Your task to perform on an android device: turn on notifications settings in the gmail app Image 0: 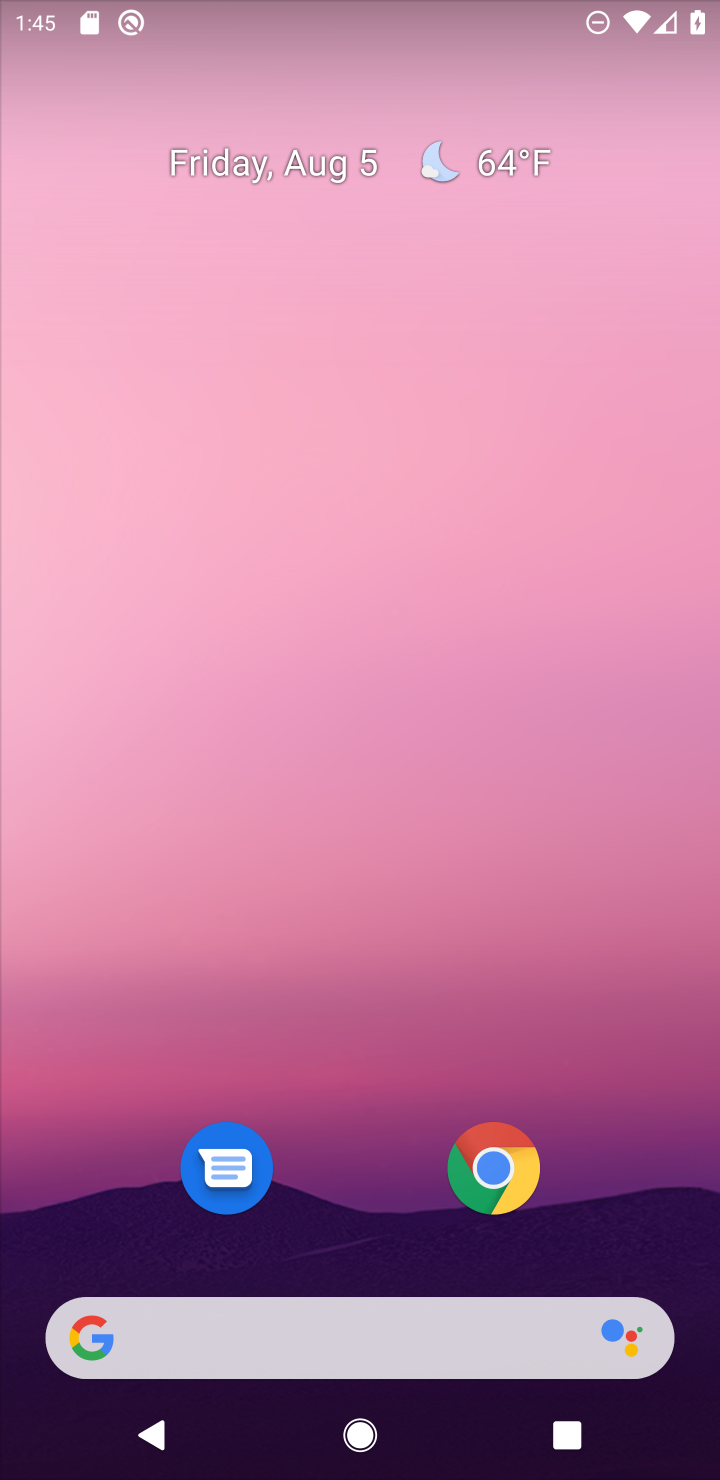
Step 0: drag from (611, 1252) to (514, 62)
Your task to perform on an android device: turn on notifications settings in the gmail app Image 1: 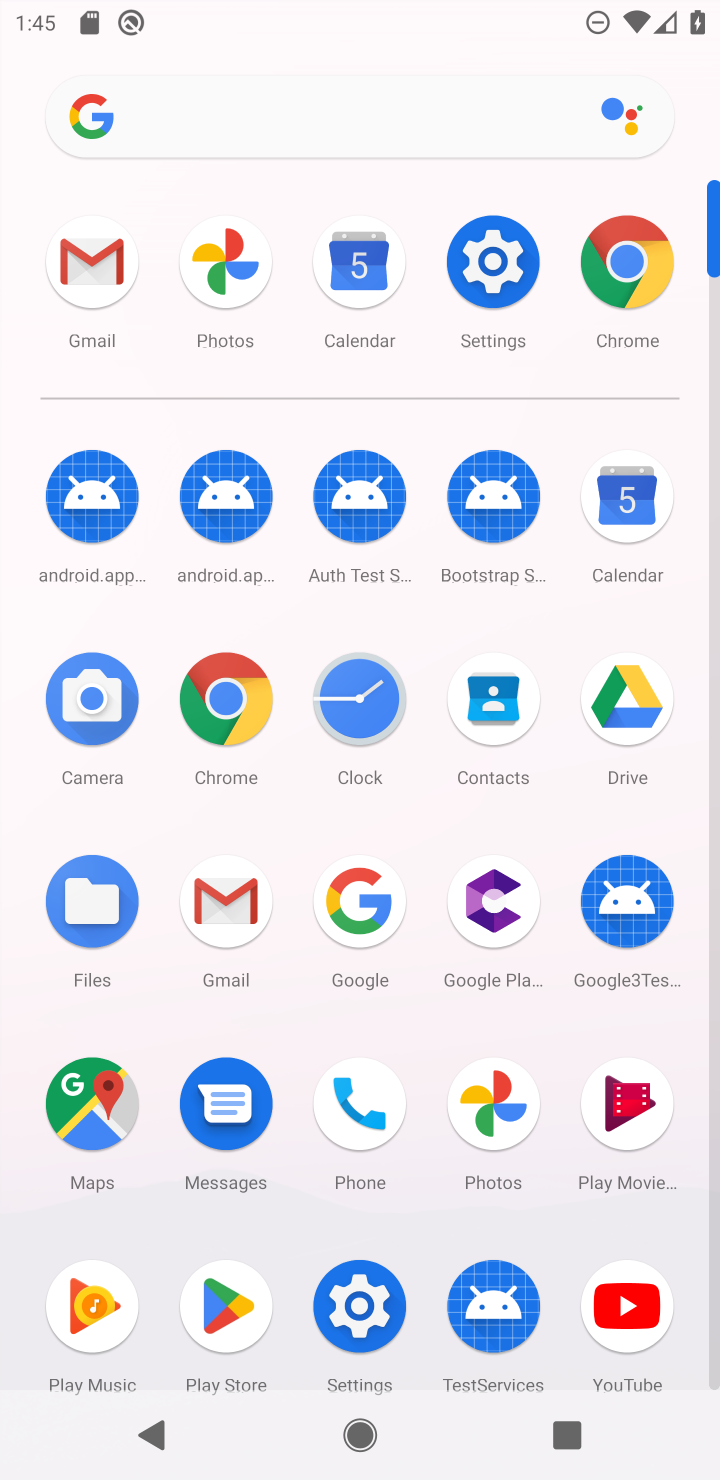
Step 1: click (223, 936)
Your task to perform on an android device: turn on notifications settings in the gmail app Image 2: 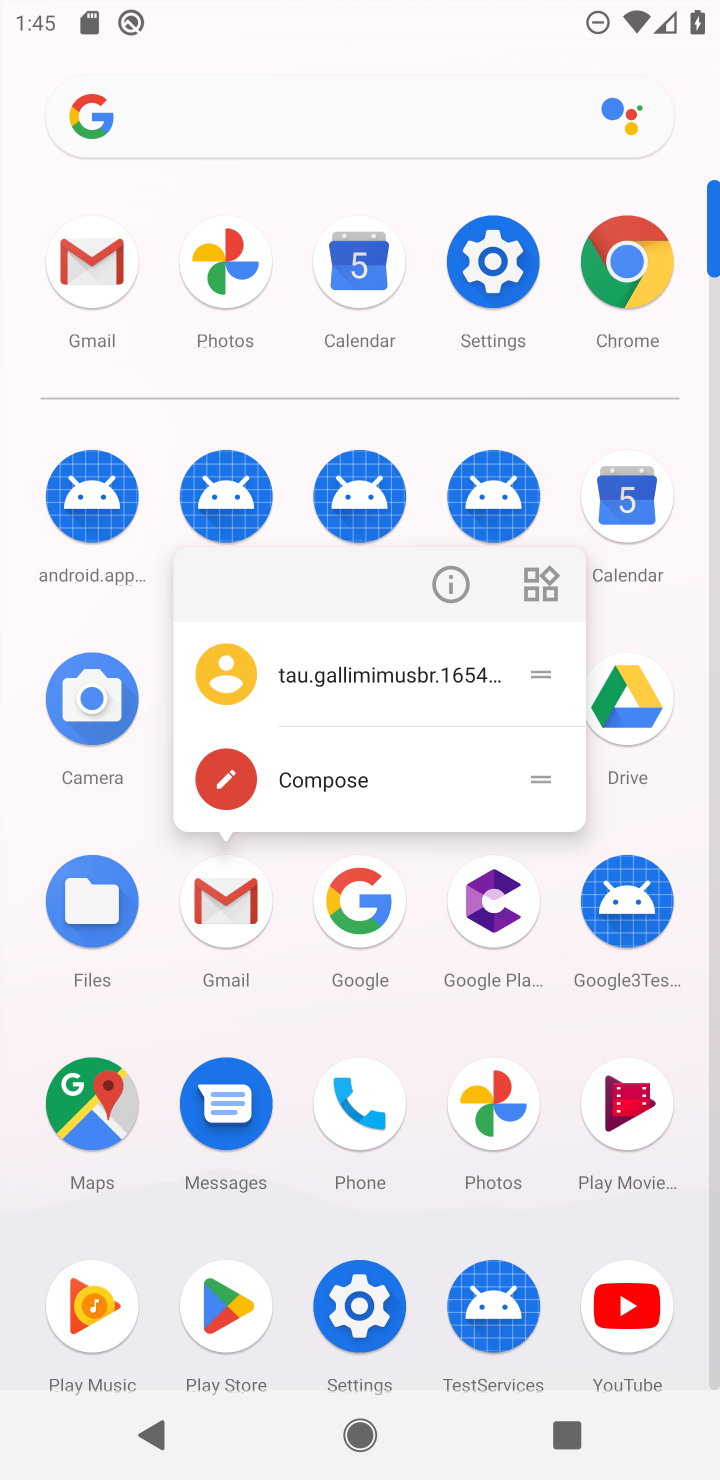
Step 2: click (221, 936)
Your task to perform on an android device: turn on notifications settings in the gmail app Image 3: 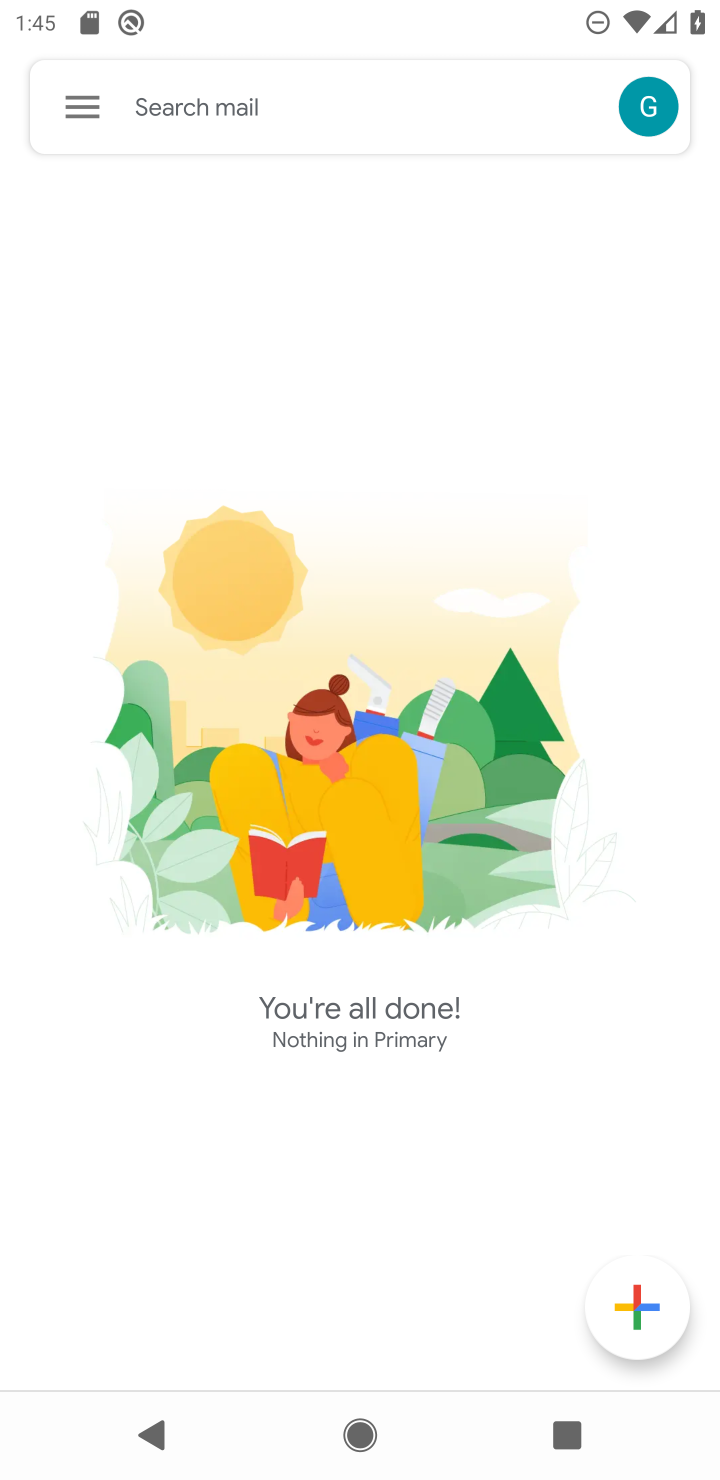
Step 3: click (58, 125)
Your task to perform on an android device: turn on notifications settings in the gmail app Image 4: 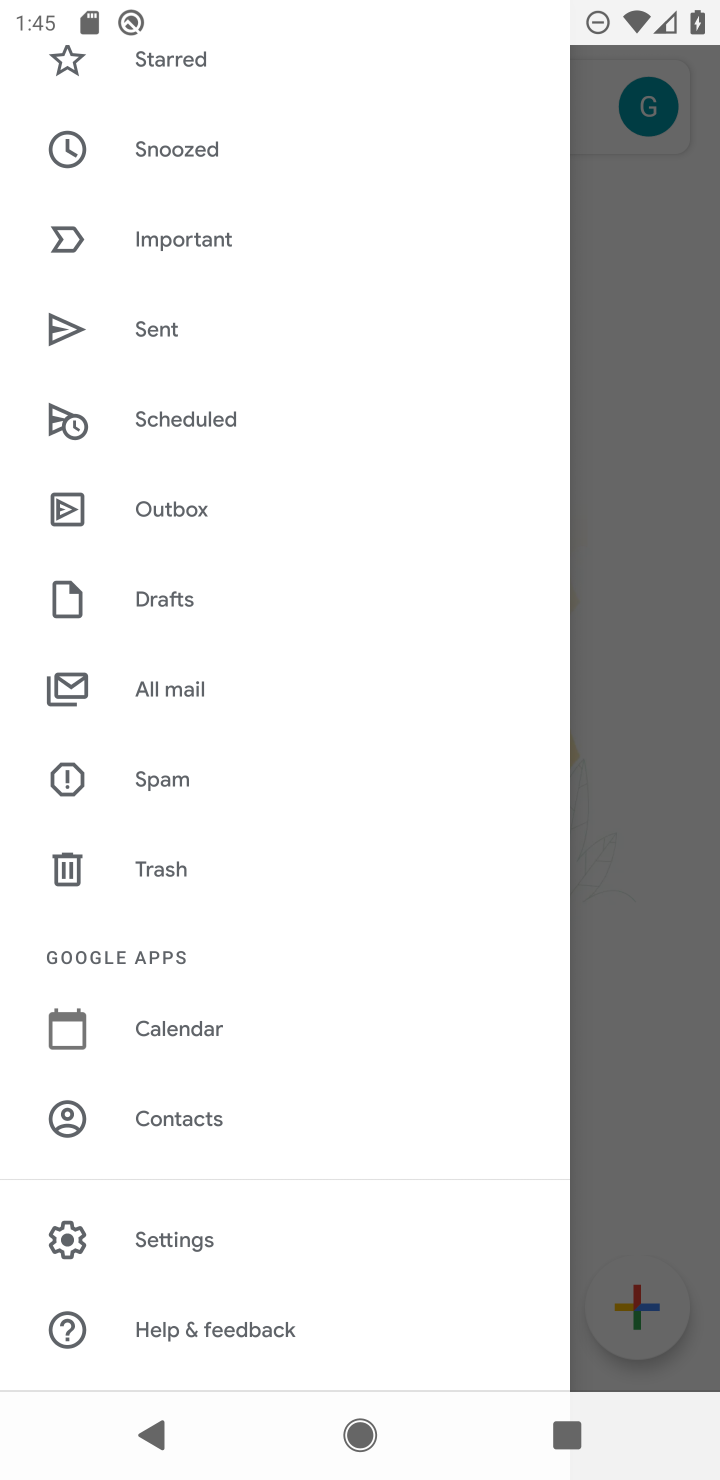
Step 4: click (104, 1243)
Your task to perform on an android device: turn on notifications settings in the gmail app Image 5: 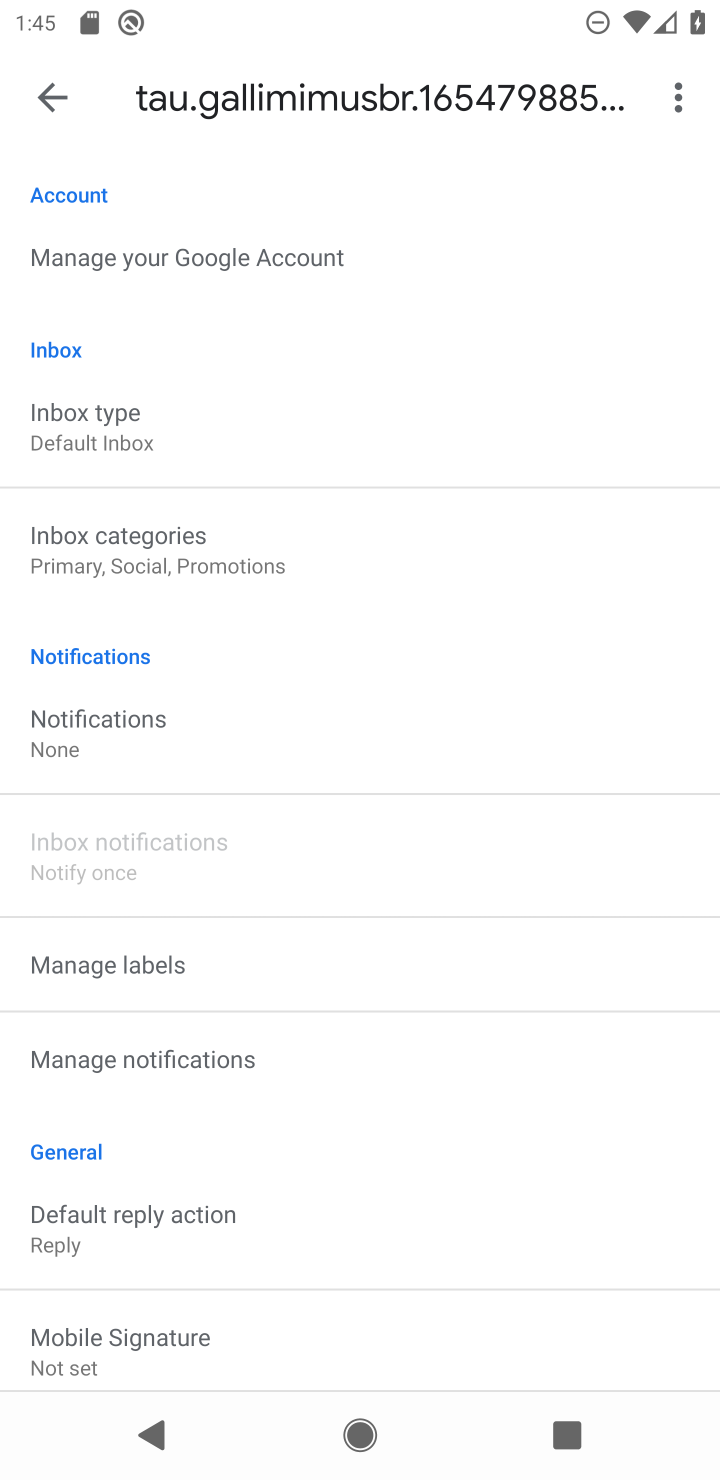
Step 5: click (94, 772)
Your task to perform on an android device: turn on notifications settings in the gmail app Image 6: 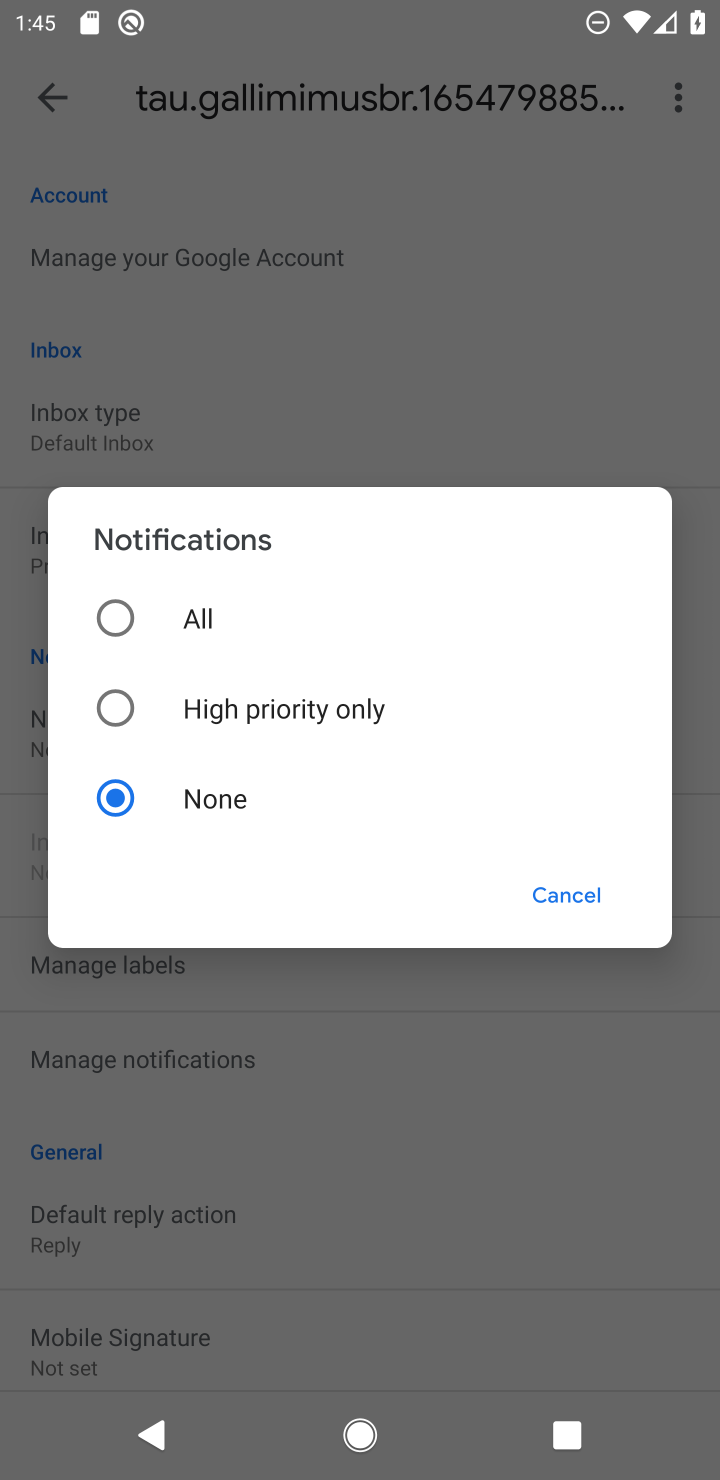
Step 6: click (130, 623)
Your task to perform on an android device: turn on notifications settings in the gmail app Image 7: 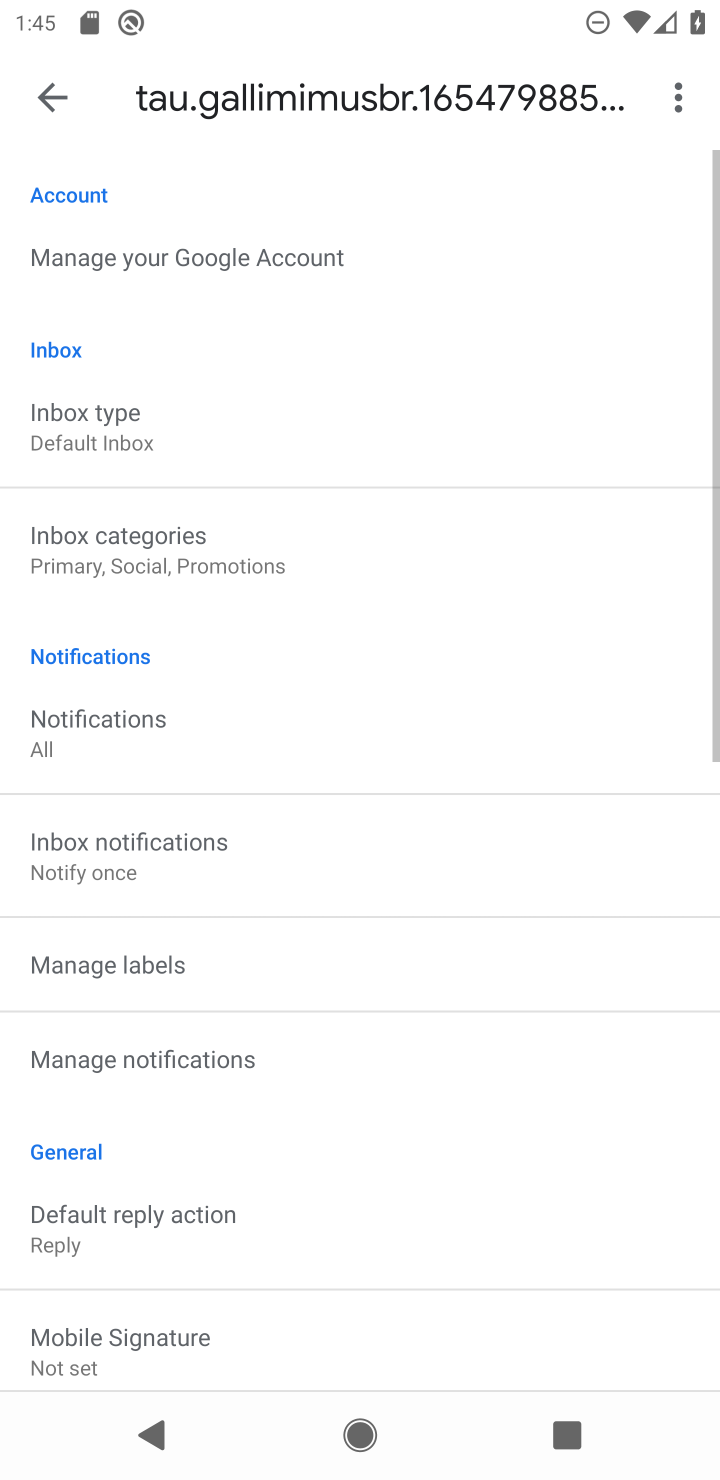
Step 7: task complete